Your task to perform on an android device: Go to wifi settings Image 0: 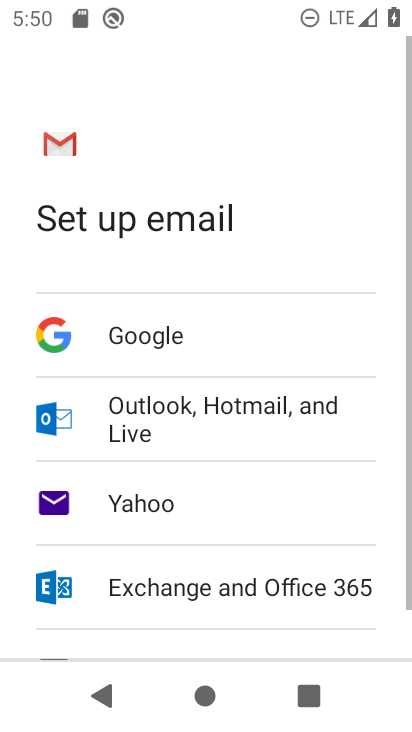
Step 0: press home button
Your task to perform on an android device: Go to wifi settings Image 1: 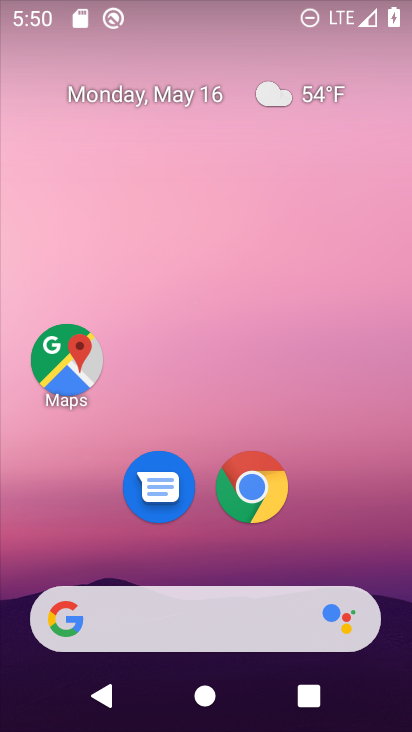
Step 1: drag from (170, 580) to (145, 289)
Your task to perform on an android device: Go to wifi settings Image 2: 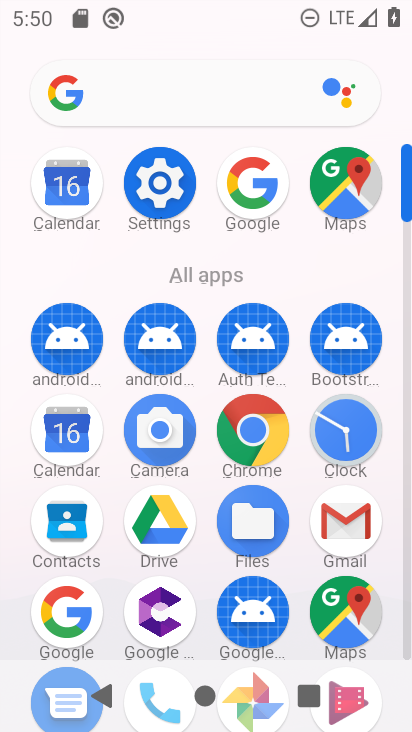
Step 2: click (157, 167)
Your task to perform on an android device: Go to wifi settings Image 3: 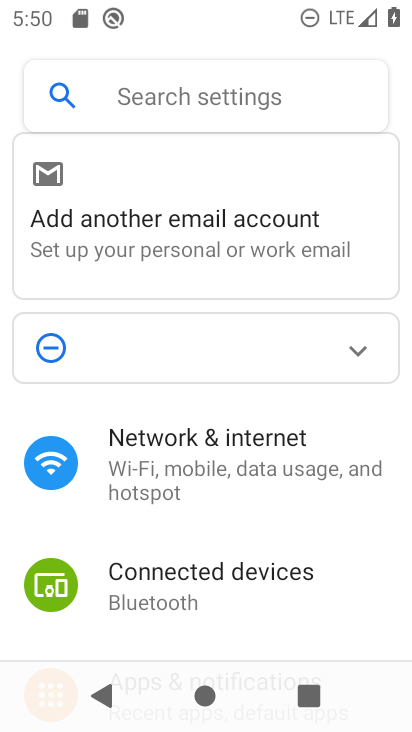
Step 3: click (210, 459)
Your task to perform on an android device: Go to wifi settings Image 4: 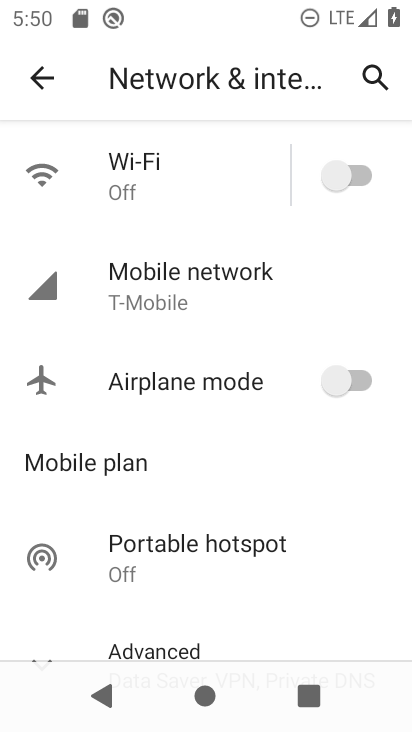
Step 4: click (126, 182)
Your task to perform on an android device: Go to wifi settings Image 5: 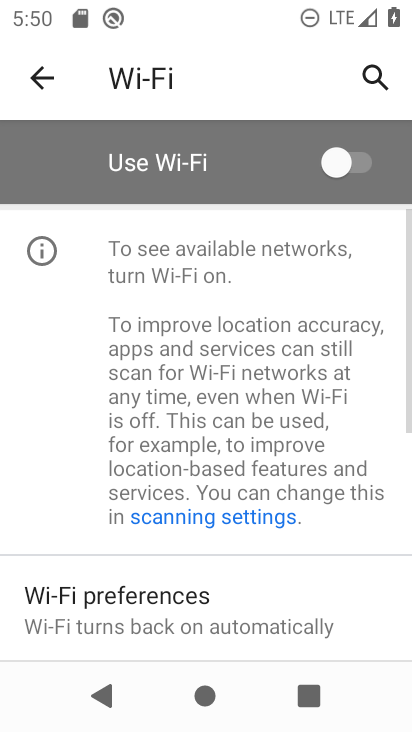
Step 5: click (368, 160)
Your task to perform on an android device: Go to wifi settings Image 6: 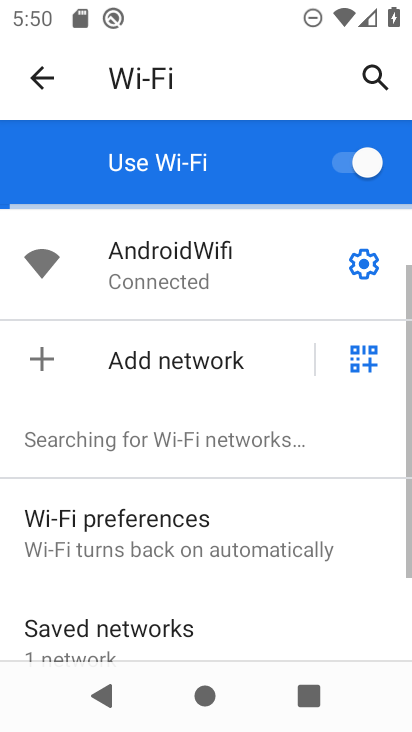
Step 6: click (363, 268)
Your task to perform on an android device: Go to wifi settings Image 7: 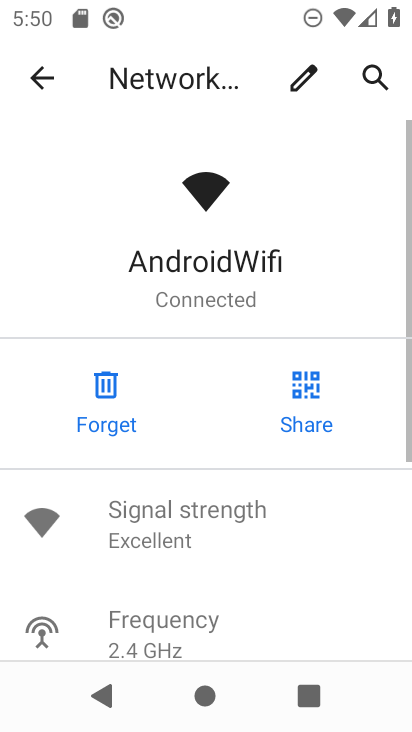
Step 7: drag from (226, 651) to (215, 324)
Your task to perform on an android device: Go to wifi settings Image 8: 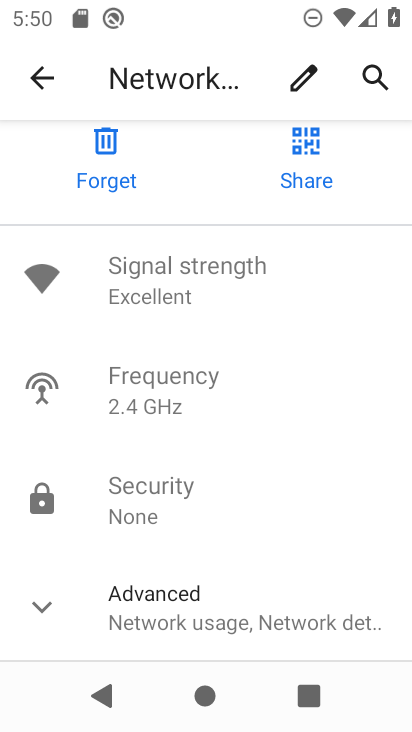
Step 8: click (228, 620)
Your task to perform on an android device: Go to wifi settings Image 9: 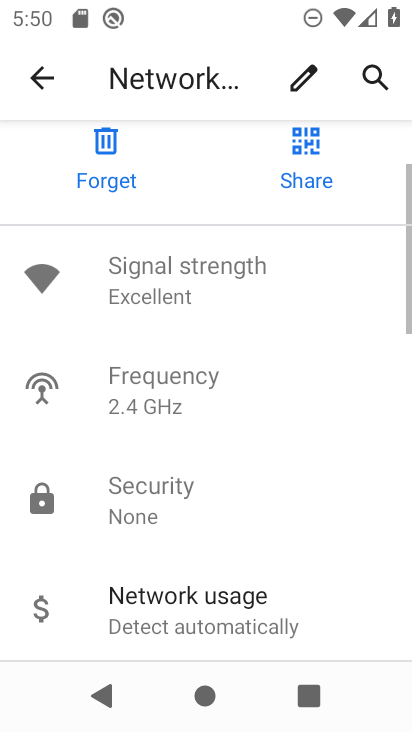
Step 9: task complete